Your task to perform on an android device: Open battery settings Image 0: 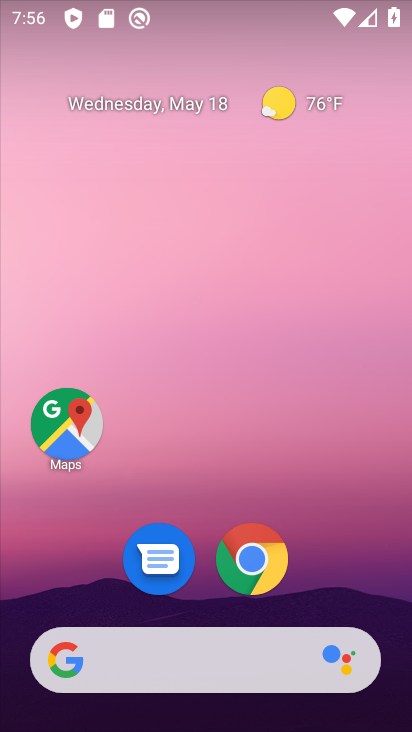
Step 0: drag from (334, 558) to (355, 8)
Your task to perform on an android device: Open battery settings Image 1: 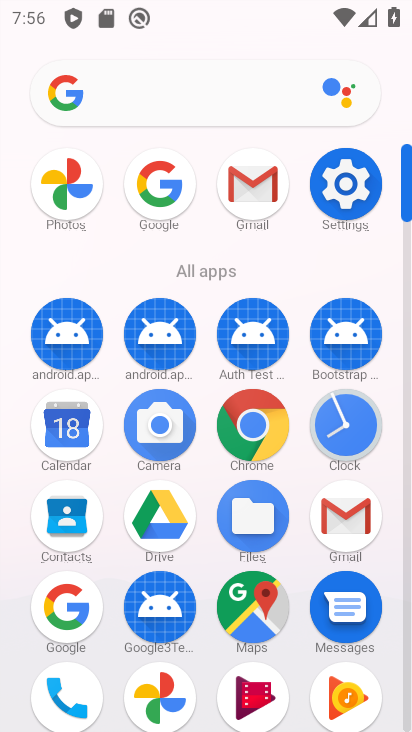
Step 1: click (350, 178)
Your task to perform on an android device: Open battery settings Image 2: 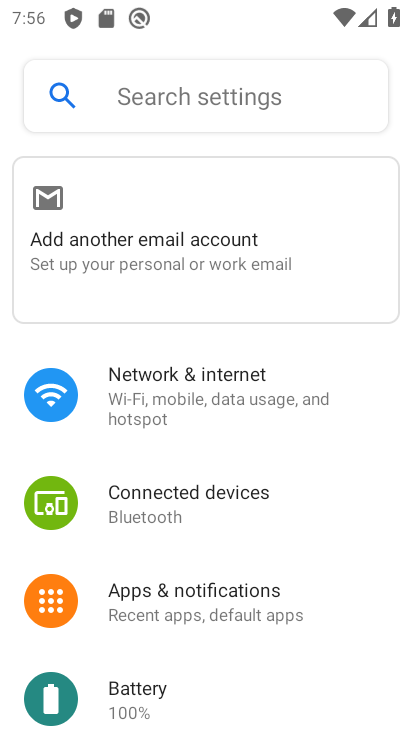
Step 2: drag from (250, 573) to (274, 269)
Your task to perform on an android device: Open battery settings Image 3: 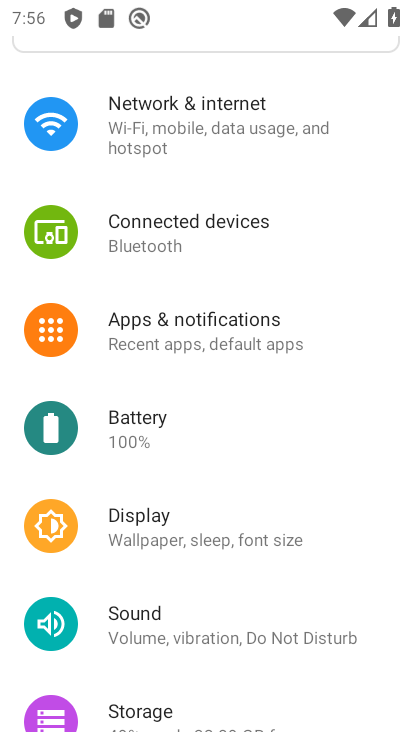
Step 3: click (196, 416)
Your task to perform on an android device: Open battery settings Image 4: 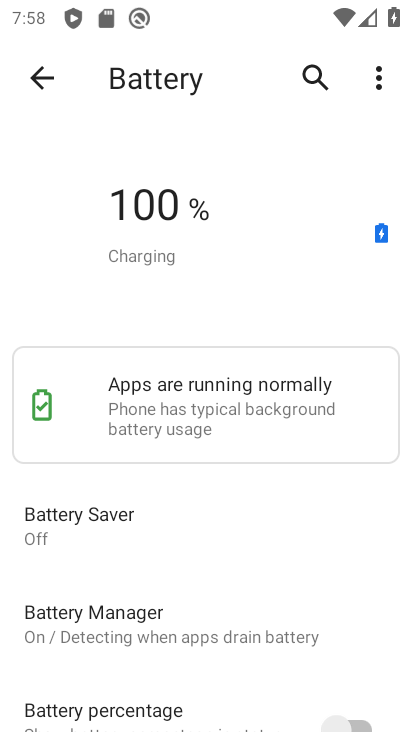
Step 4: task complete